Your task to perform on an android device: star an email in the gmail app Image 0: 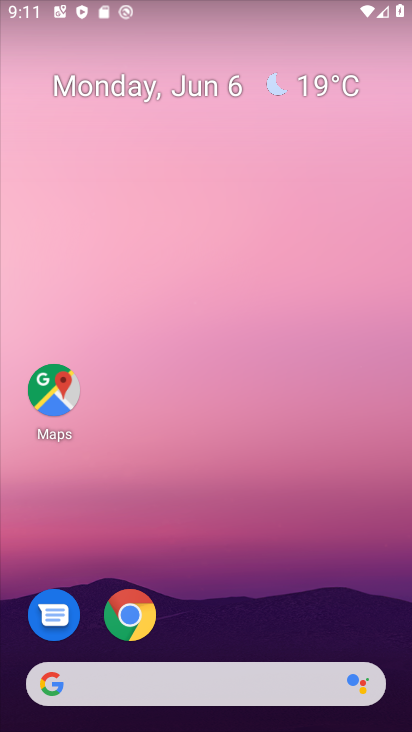
Step 0: drag from (223, 643) to (283, 40)
Your task to perform on an android device: star an email in the gmail app Image 1: 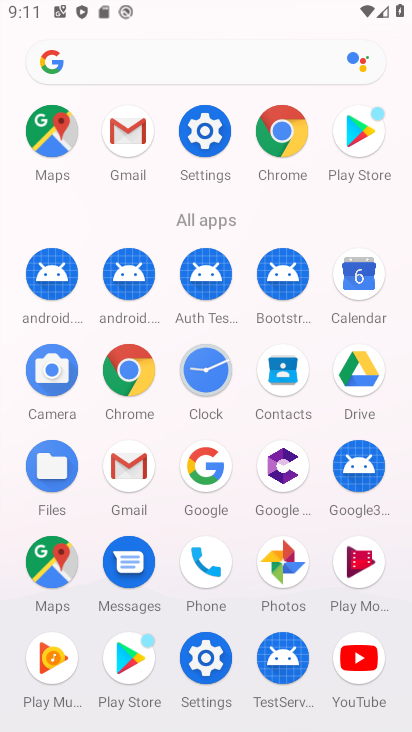
Step 1: click (126, 472)
Your task to perform on an android device: star an email in the gmail app Image 2: 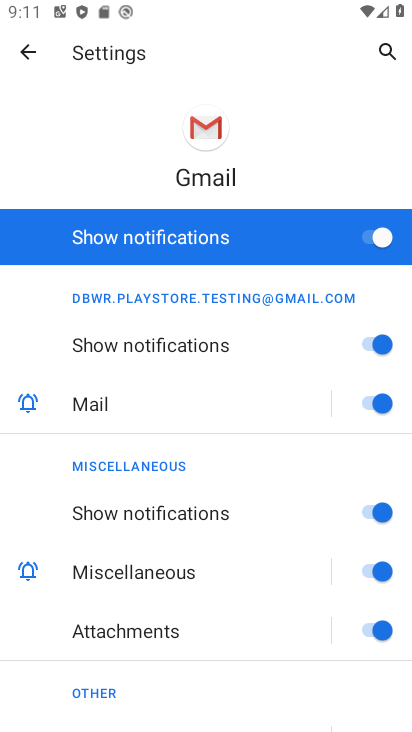
Step 2: click (17, 43)
Your task to perform on an android device: star an email in the gmail app Image 3: 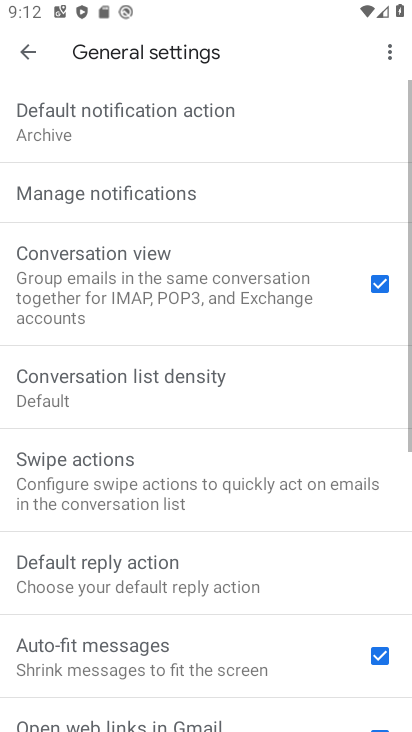
Step 3: click (17, 43)
Your task to perform on an android device: star an email in the gmail app Image 4: 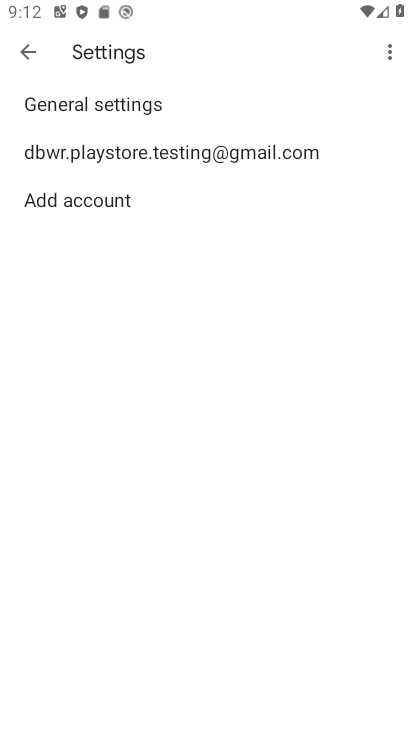
Step 4: click (17, 43)
Your task to perform on an android device: star an email in the gmail app Image 5: 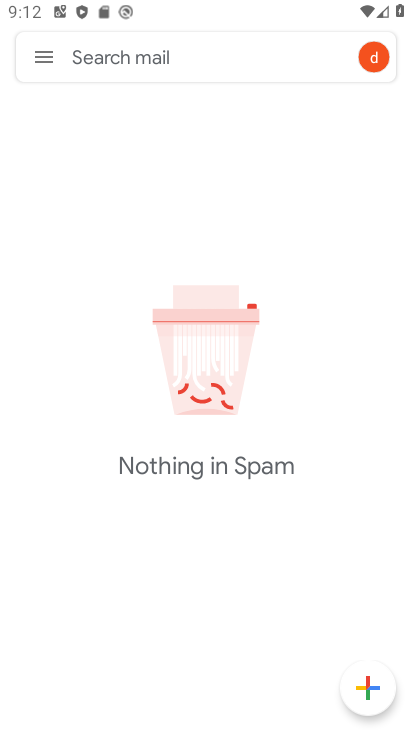
Step 5: click (17, 43)
Your task to perform on an android device: star an email in the gmail app Image 6: 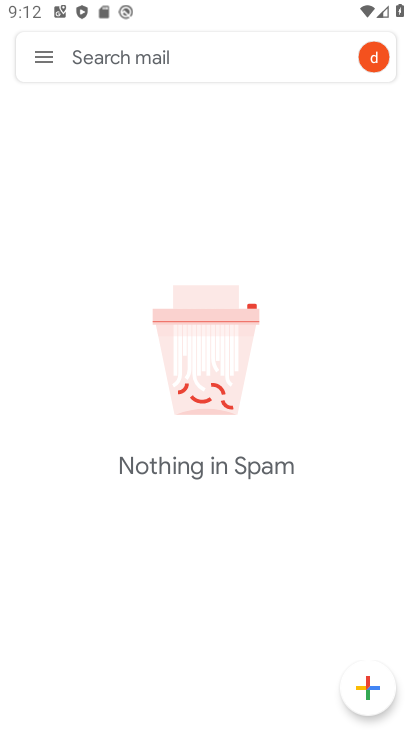
Step 6: click (51, 63)
Your task to perform on an android device: star an email in the gmail app Image 7: 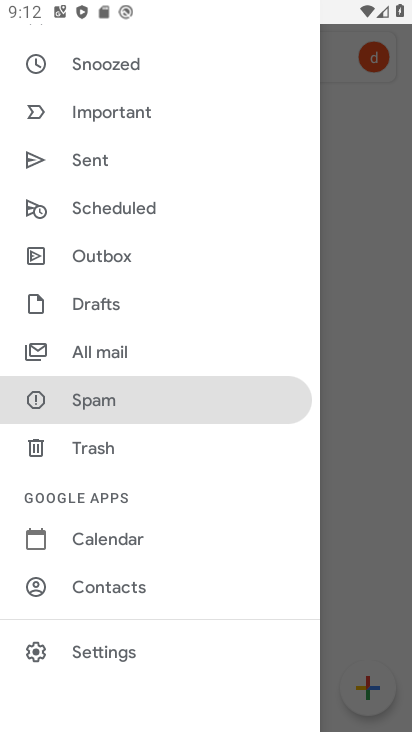
Step 7: drag from (127, 131) to (31, 578)
Your task to perform on an android device: star an email in the gmail app Image 8: 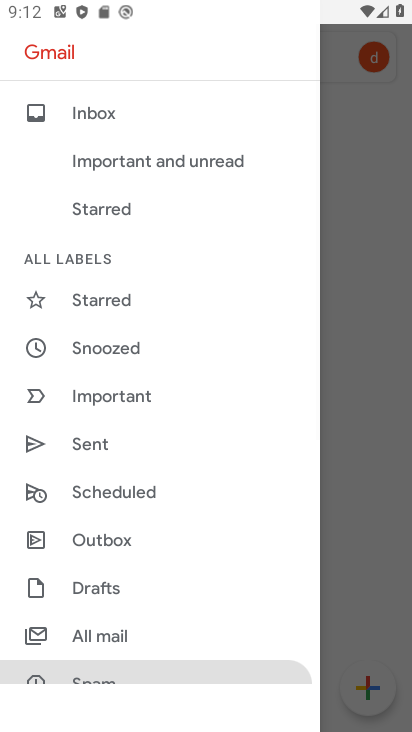
Step 8: click (93, 224)
Your task to perform on an android device: star an email in the gmail app Image 9: 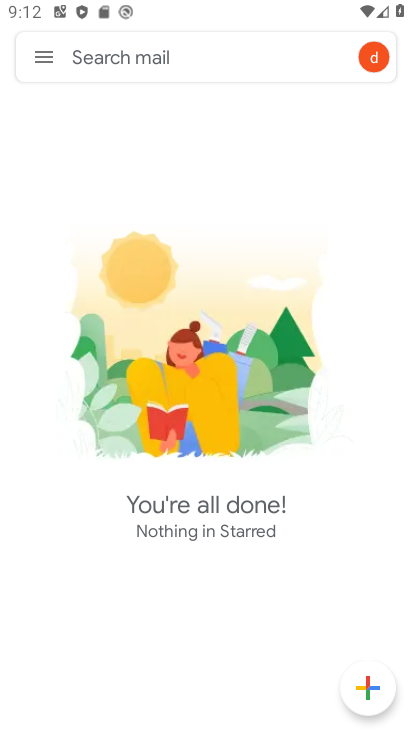
Step 9: task complete